Your task to perform on an android device: Open calendar and show me the first week of next month Image 0: 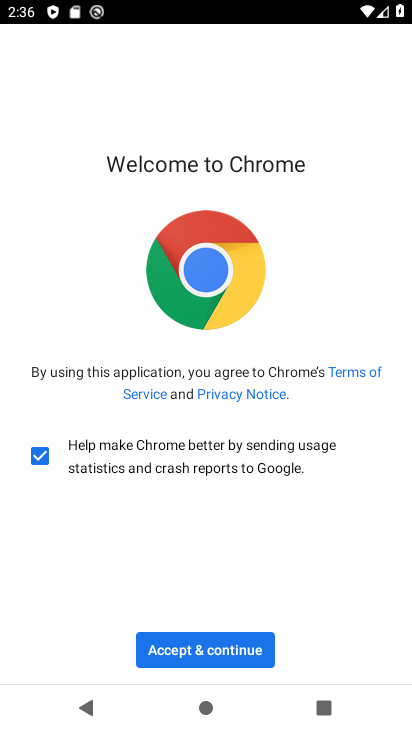
Step 0: press home button
Your task to perform on an android device: Open calendar and show me the first week of next month Image 1: 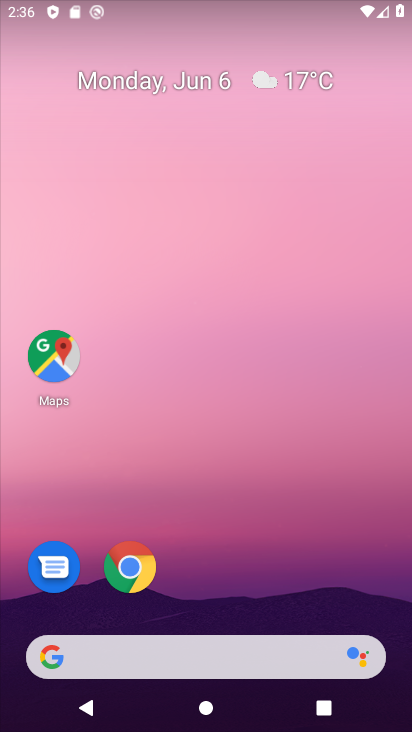
Step 1: drag from (209, 628) to (335, 8)
Your task to perform on an android device: Open calendar and show me the first week of next month Image 2: 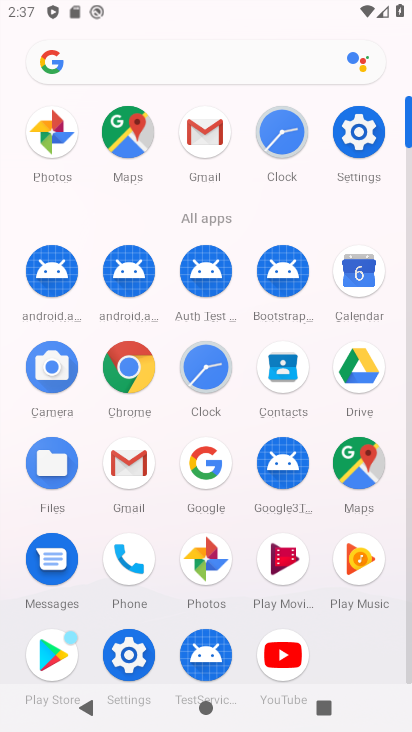
Step 2: click (357, 266)
Your task to perform on an android device: Open calendar and show me the first week of next month Image 3: 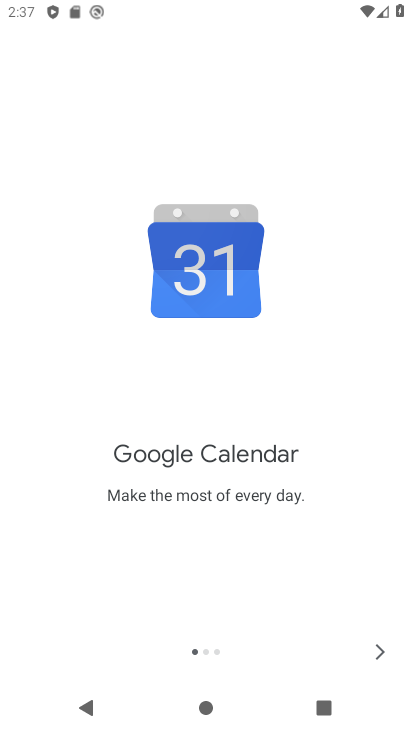
Step 3: click (385, 661)
Your task to perform on an android device: Open calendar and show me the first week of next month Image 4: 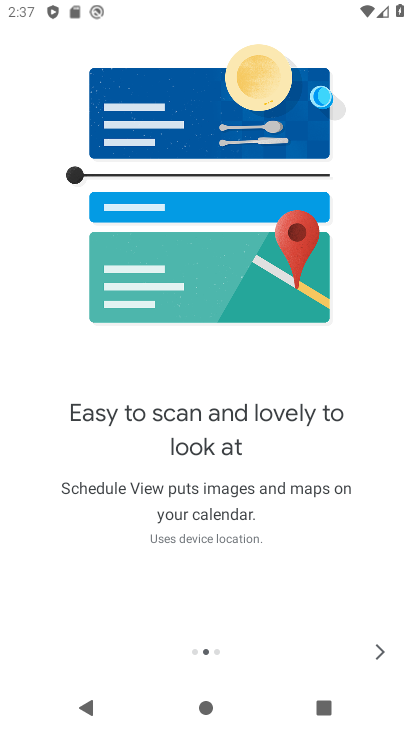
Step 4: click (388, 651)
Your task to perform on an android device: Open calendar and show me the first week of next month Image 5: 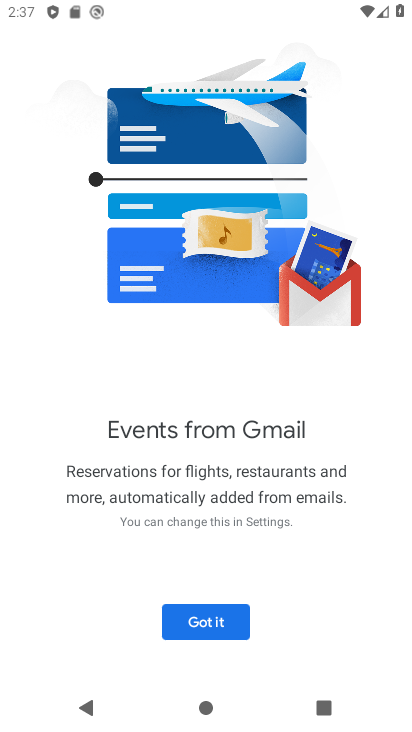
Step 5: click (204, 612)
Your task to perform on an android device: Open calendar and show me the first week of next month Image 6: 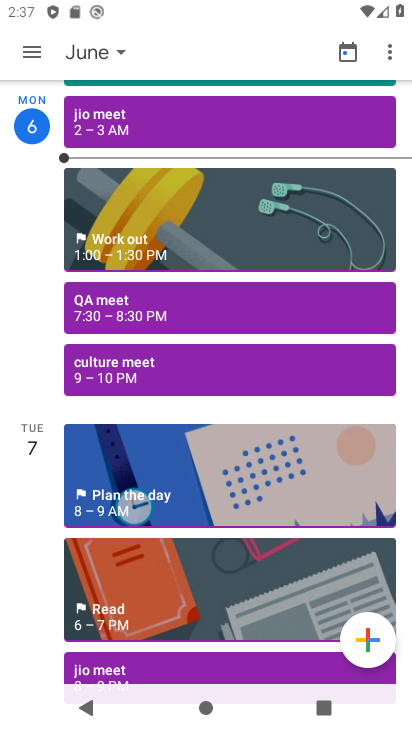
Step 6: click (26, 37)
Your task to perform on an android device: Open calendar and show me the first week of next month Image 7: 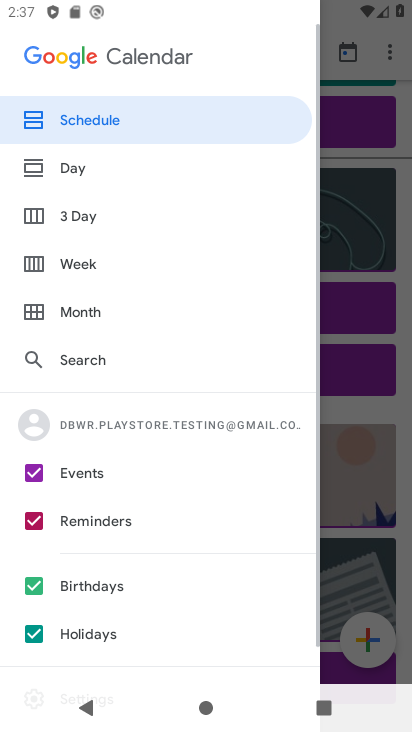
Step 7: click (76, 264)
Your task to perform on an android device: Open calendar and show me the first week of next month Image 8: 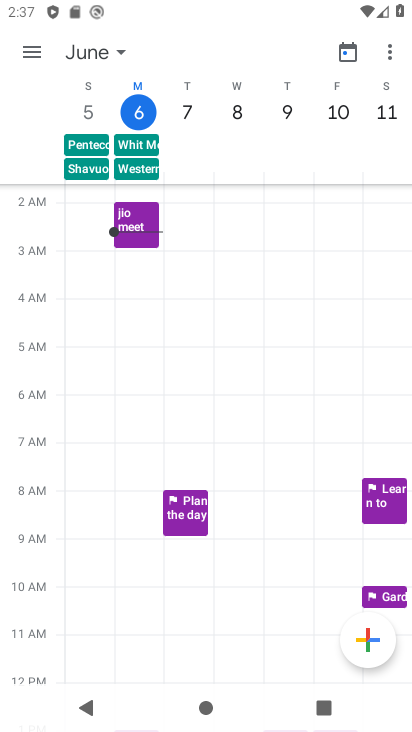
Step 8: task complete